Your task to perform on an android device: Open network settings Image 0: 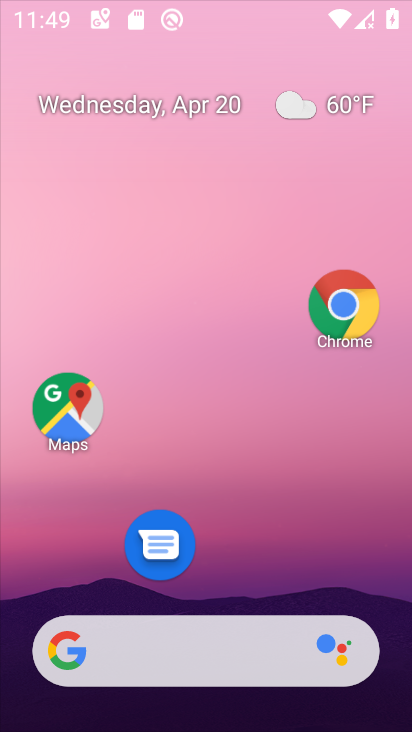
Step 0: click (321, 110)
Your task to perform on an android device: Open network settings Image 1: 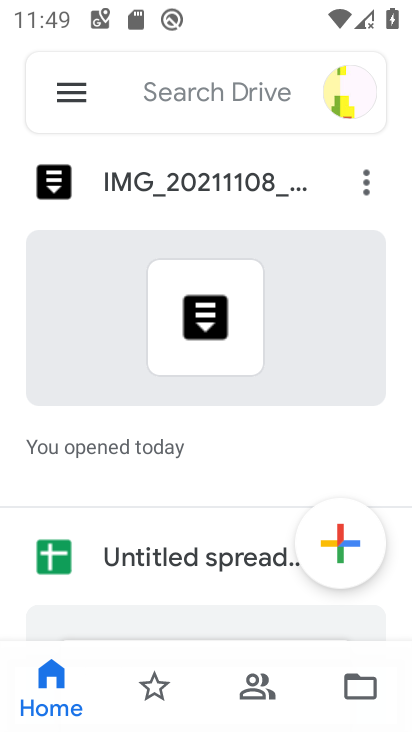
Step 1: press home button
Your task to perform on an android device: Open network settings Image 2: 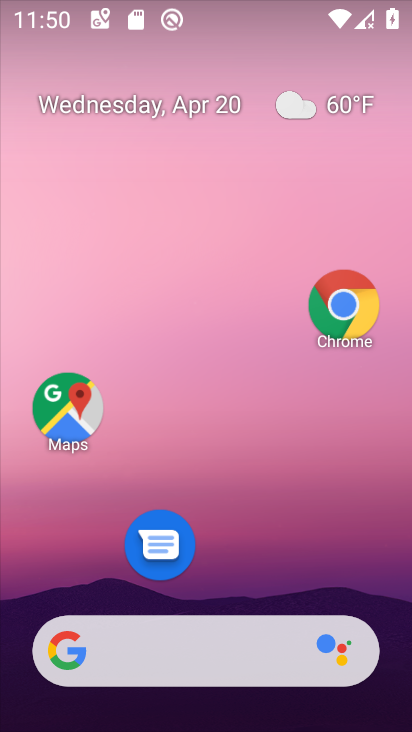
Step 2: drag from (284, 609) to (279, 21)
Your task to perform on an android device: Open network settings Image 3: 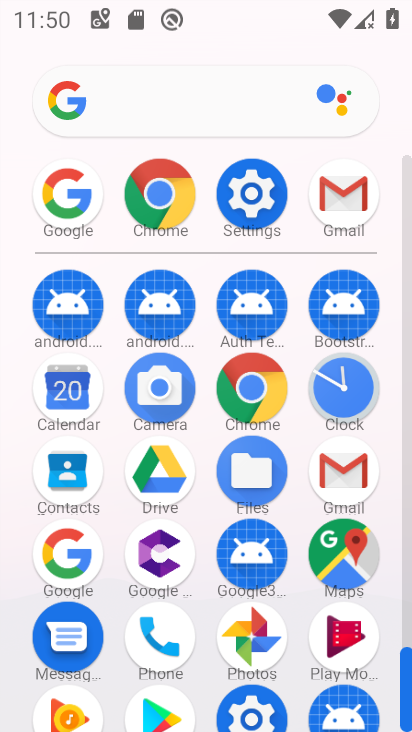
Step 3: click (271, 202)
Your task to perform on an android device: Open network settings Image 4: 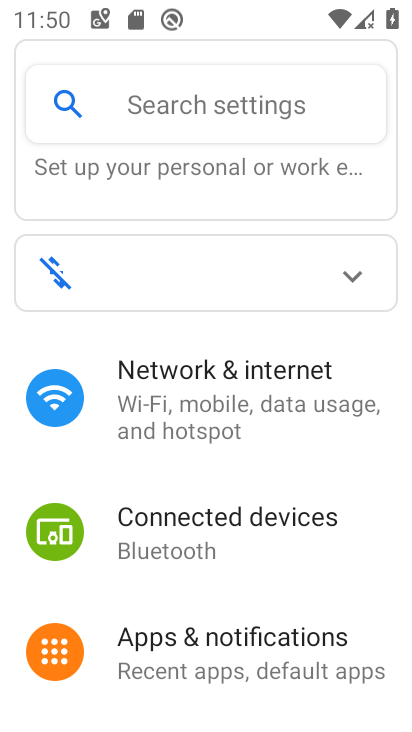
Step 4: click (234, 406)
Your task to perform on an android device: Open network settings Image 5: 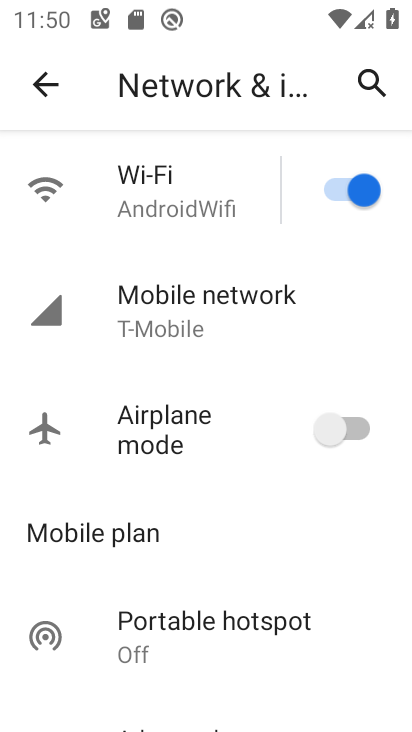
Step 5: click (195, 316)
Your task to perform on an android device: Open network settings Image 6: 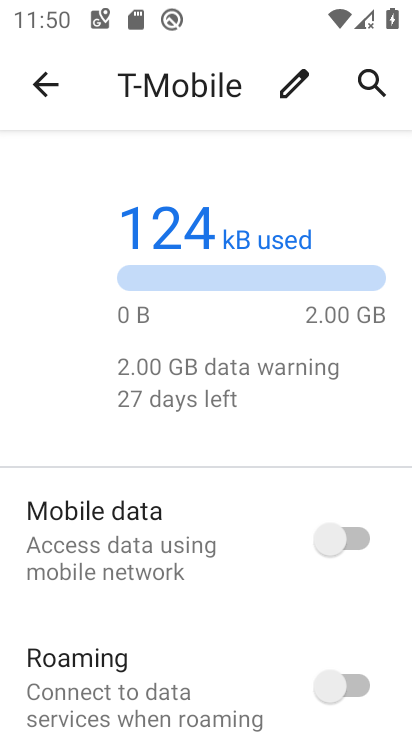
Step 6: task complete